Your task to perform on an android device: What's the weather going to be this weekend? Image 0: 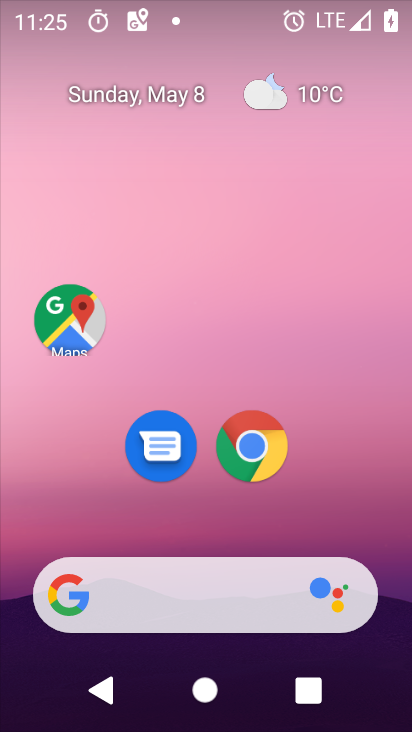
Step 0: click (316, 101)
Your task to perform on an android device: What's the weather going to be this weekend? Image 1: 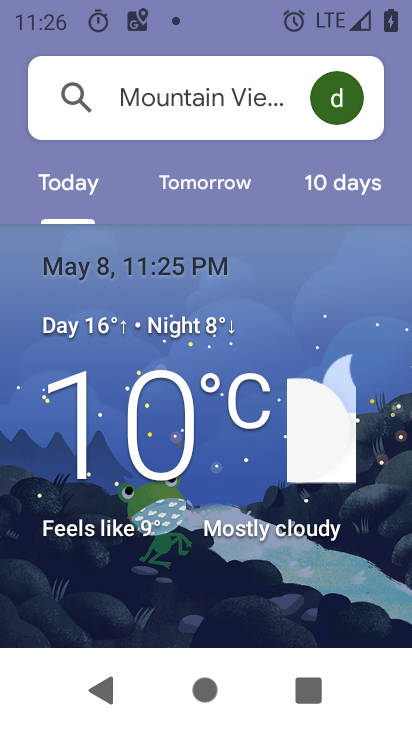
Step 1: click (356, 201)
Your task to perform on an android device: What's the weather going to be this weekend? Image 2: 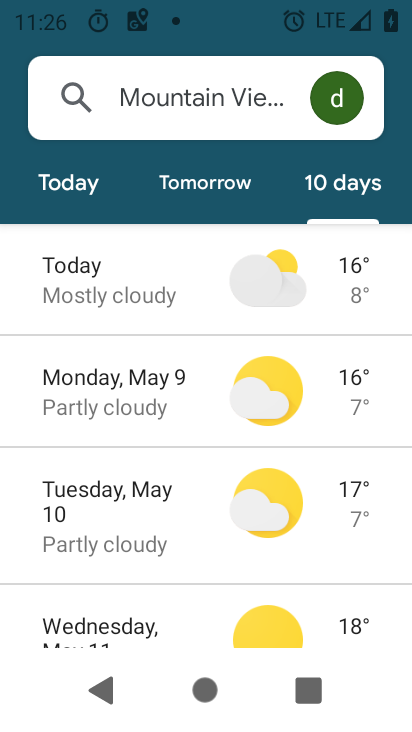
Step 2: task complete